Your task to perform on an android device: Open Google Chrome and open the bookmarks view Image 0: 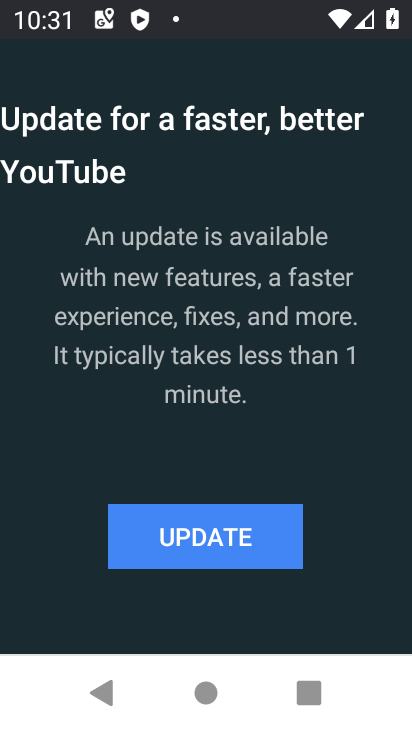
Step 0: press home button
Your task to perform on an android device: Open Google Chrome and open the bookmarks view Image 1: 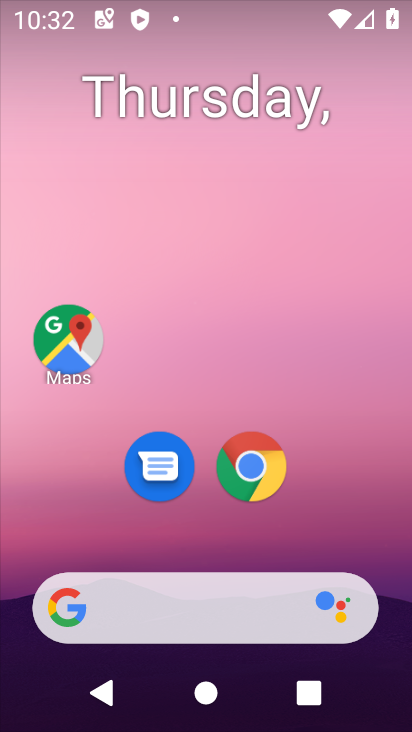
Step 1: click (241, 463)
Your task to perform on an android device: Open Google Chrome and open the bookmarks view Image 2: 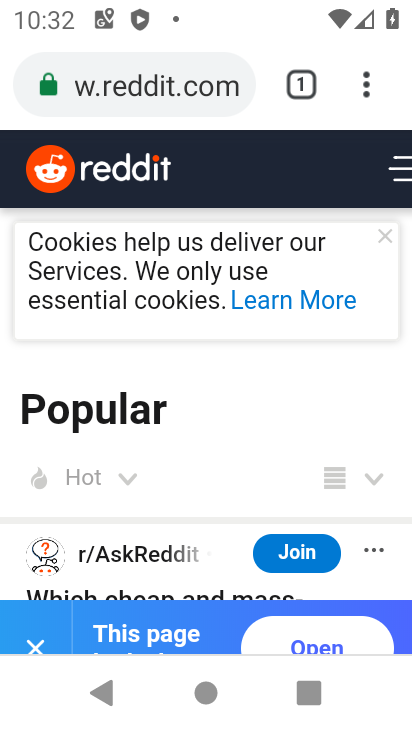
Step 2: task complete